Your task to perform on an android device: turn off javascript in the chrome app Image 0: 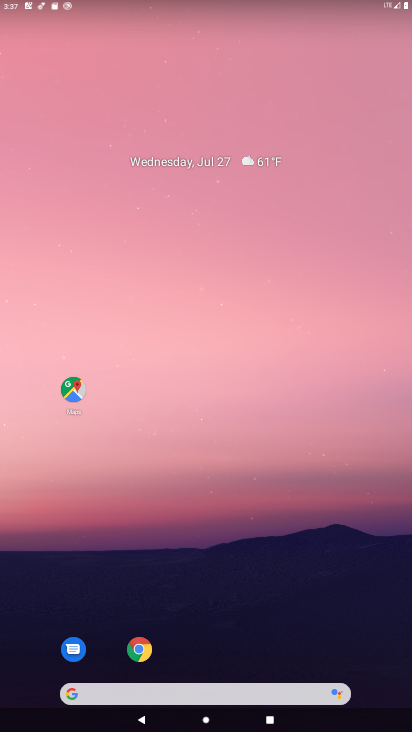
Step 0: click (136, 647)
Your task to perform on an android device: turn off javascript in the chrome app Image 1: 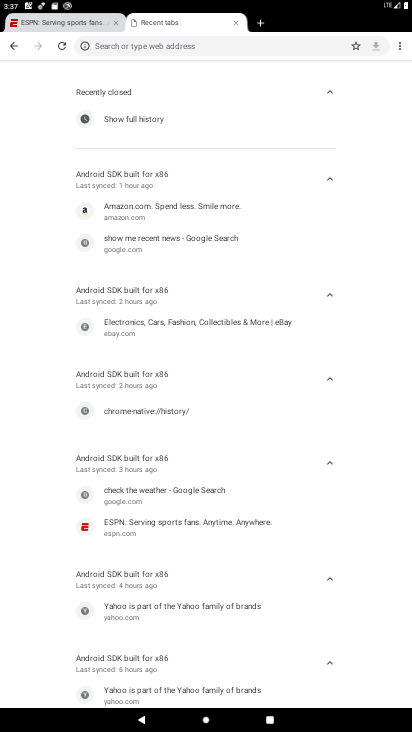
Step 1: click (395, 50)
Your task to perform on an android device: turn off javascript in the chrome app Image 2: 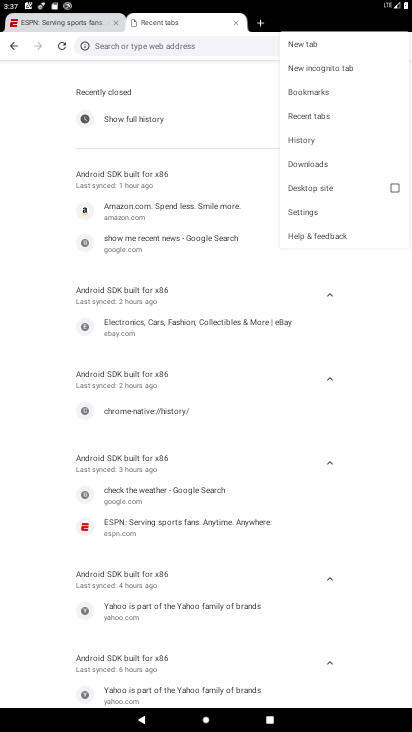
Step 2: click (306, 210)
Your task to perform on an android device: turn off javascript in the chrome app Image 3: 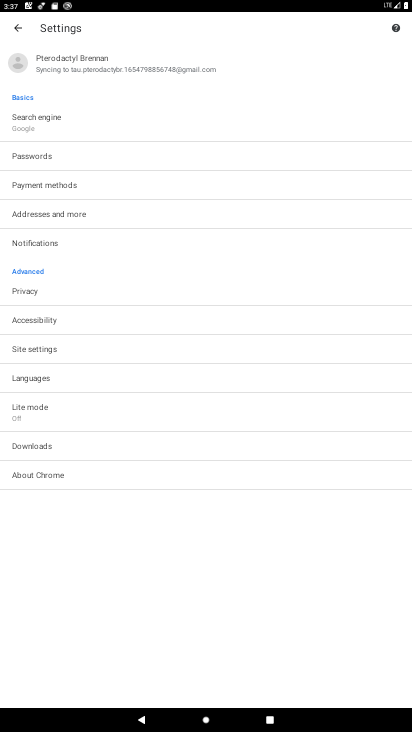
Step 3: click (65, 346)
Your task to perform on an android device: turn off javascript in the chrome app Image 4: 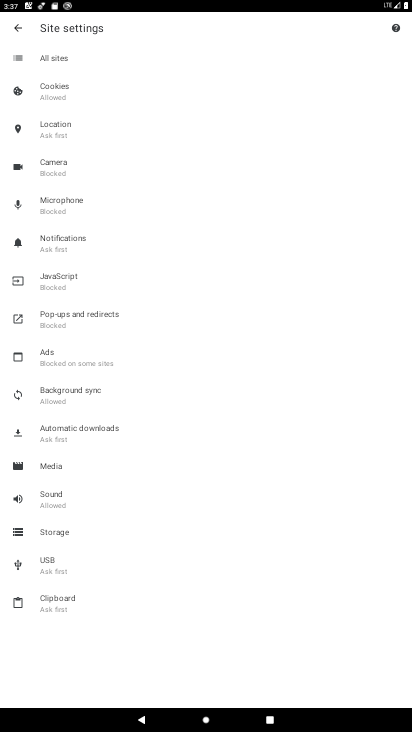
Step 4: click (65, 288)
Your task to perform on an android device: turn off javascript in the chrome app Image 5: 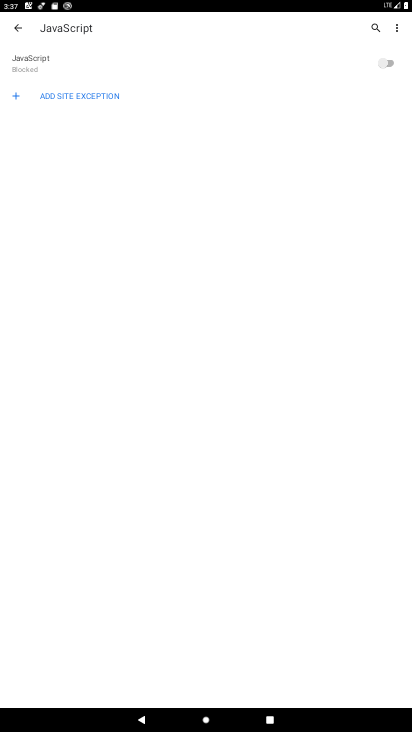
Step 5: task complete